Your task to perform on an android device: Show me popular games on the Play Store Image 0: 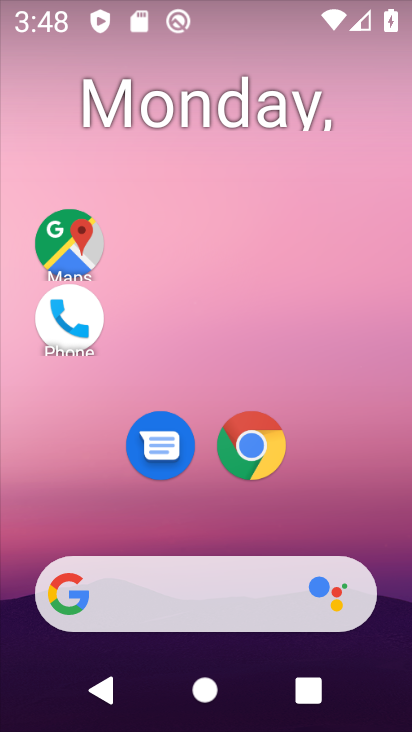
Step 0: drag from (243, 528) to (172, 8)
Your task to perform on an android device: Show me popular games on the Play Store Image 1: 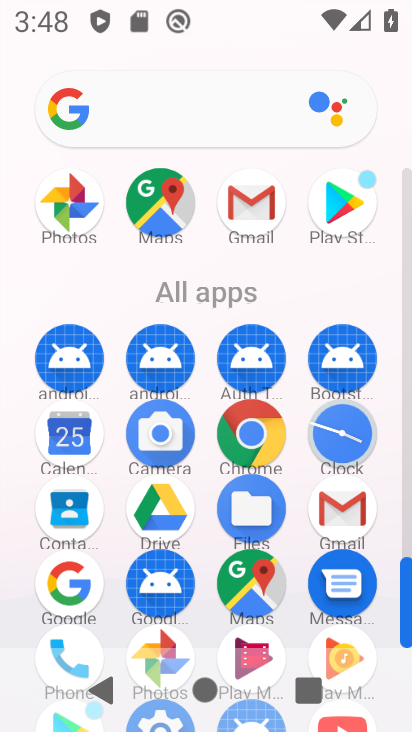
Step 1: click (349, 214)
Your task to perform on an android device: Show me popular games on the Play Store Image 2: 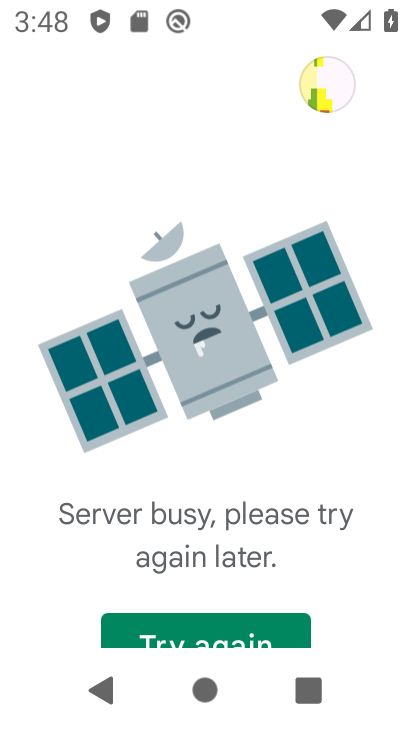
Step 2: task complete